Your task to perform on an android device: all mails in gmail Image 0: 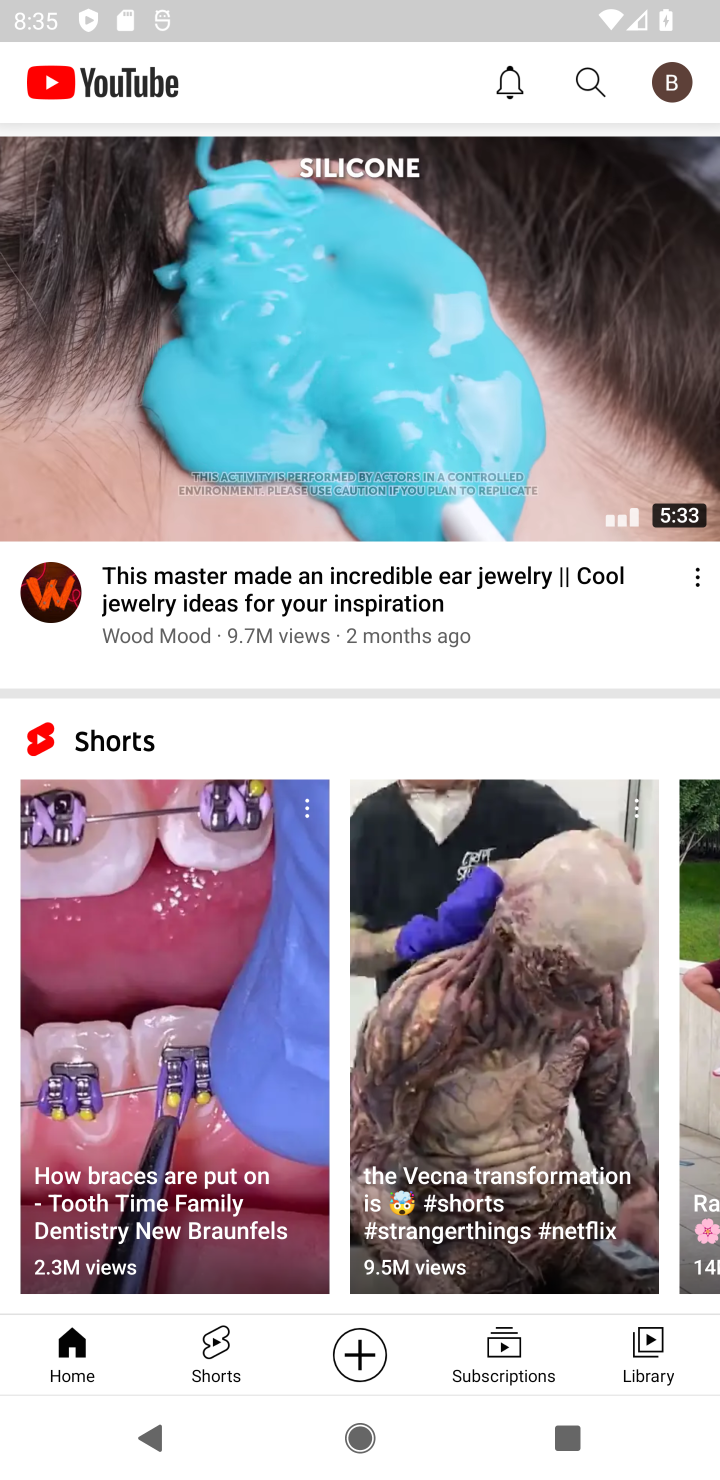
Step 0: press home button
Your task to perform on an android device: all mails in gmail Image 1: 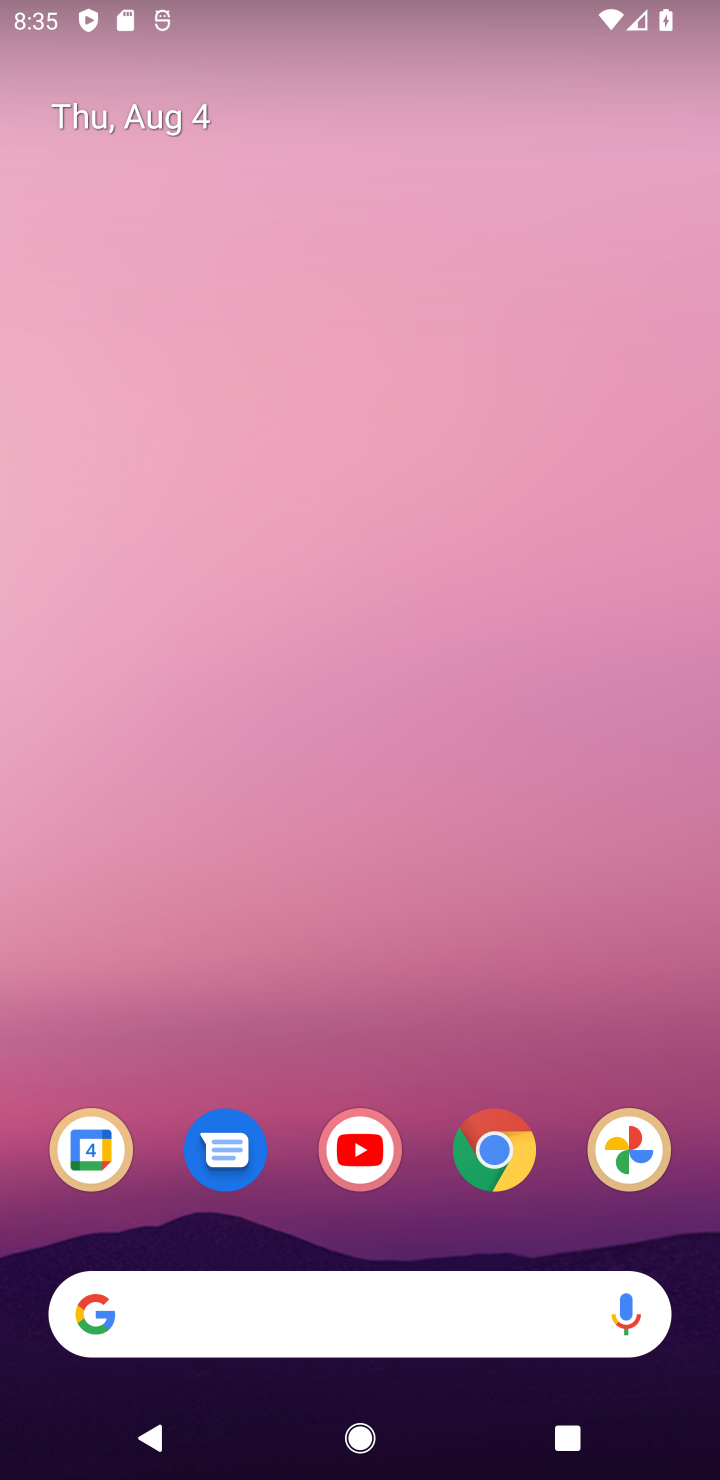
Step 1: drag from (467, 1228) to (333, 127)
Your task to perform on an android device: all mails in gmail Image 2: 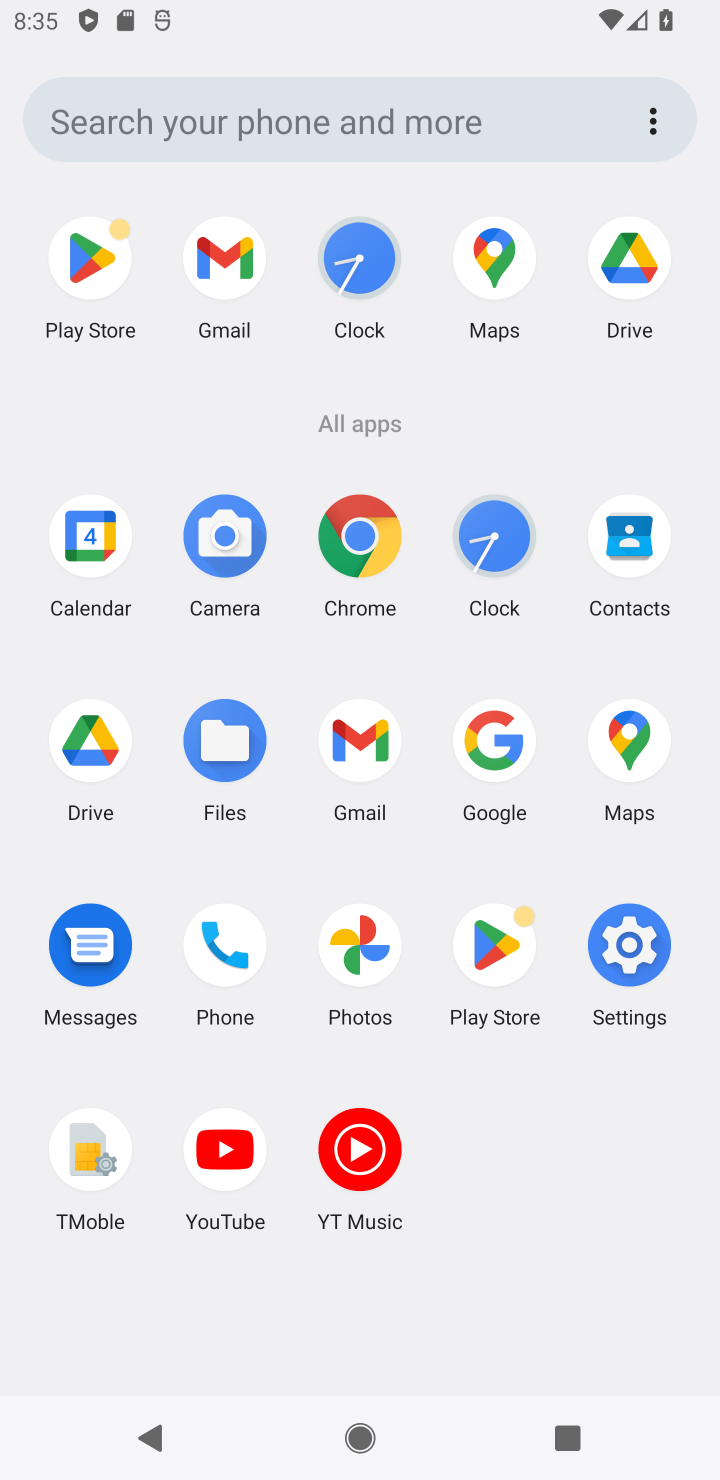
Step 2: click (344, 784)
Your task to perform on an android device: all mails in gmail Image 3: 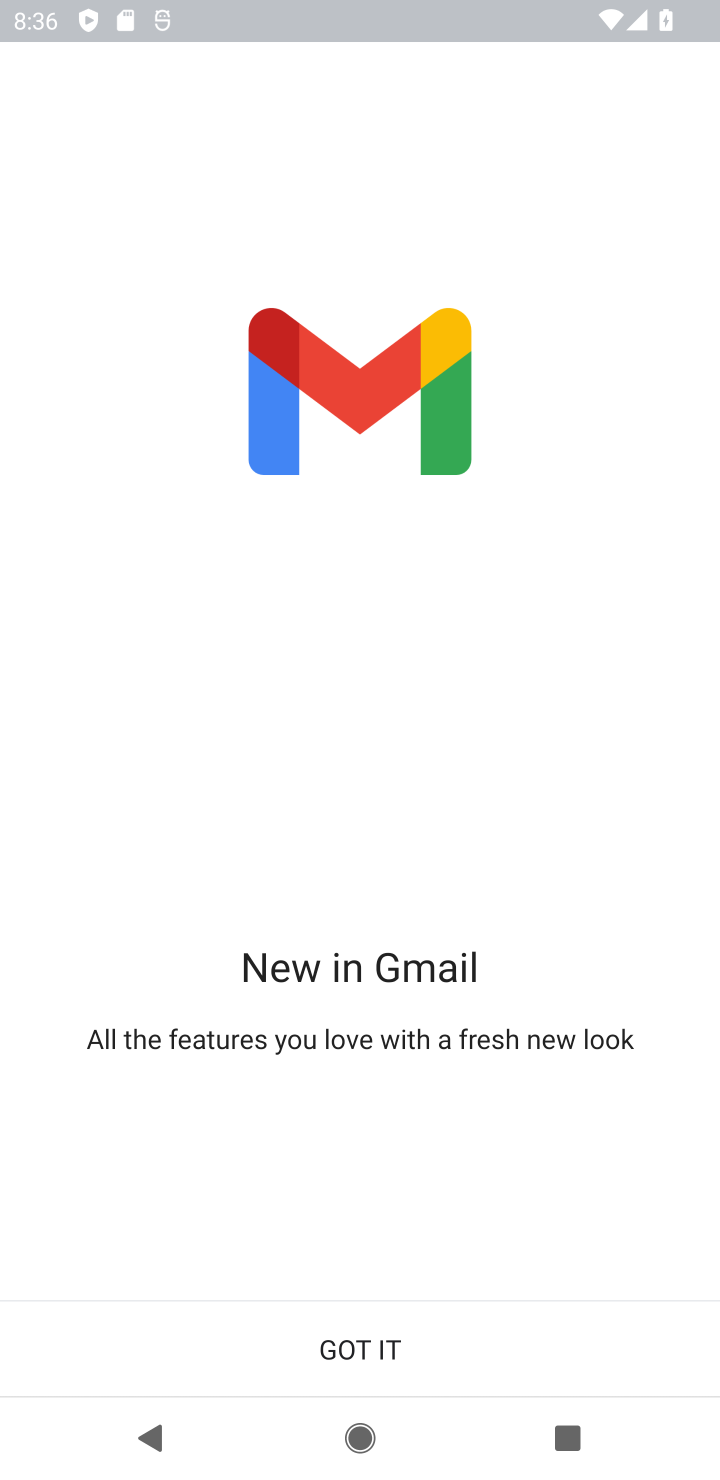
Step 3: click (429, 1333)
Your task to perform on an android device: all mails in gmail Image 4: 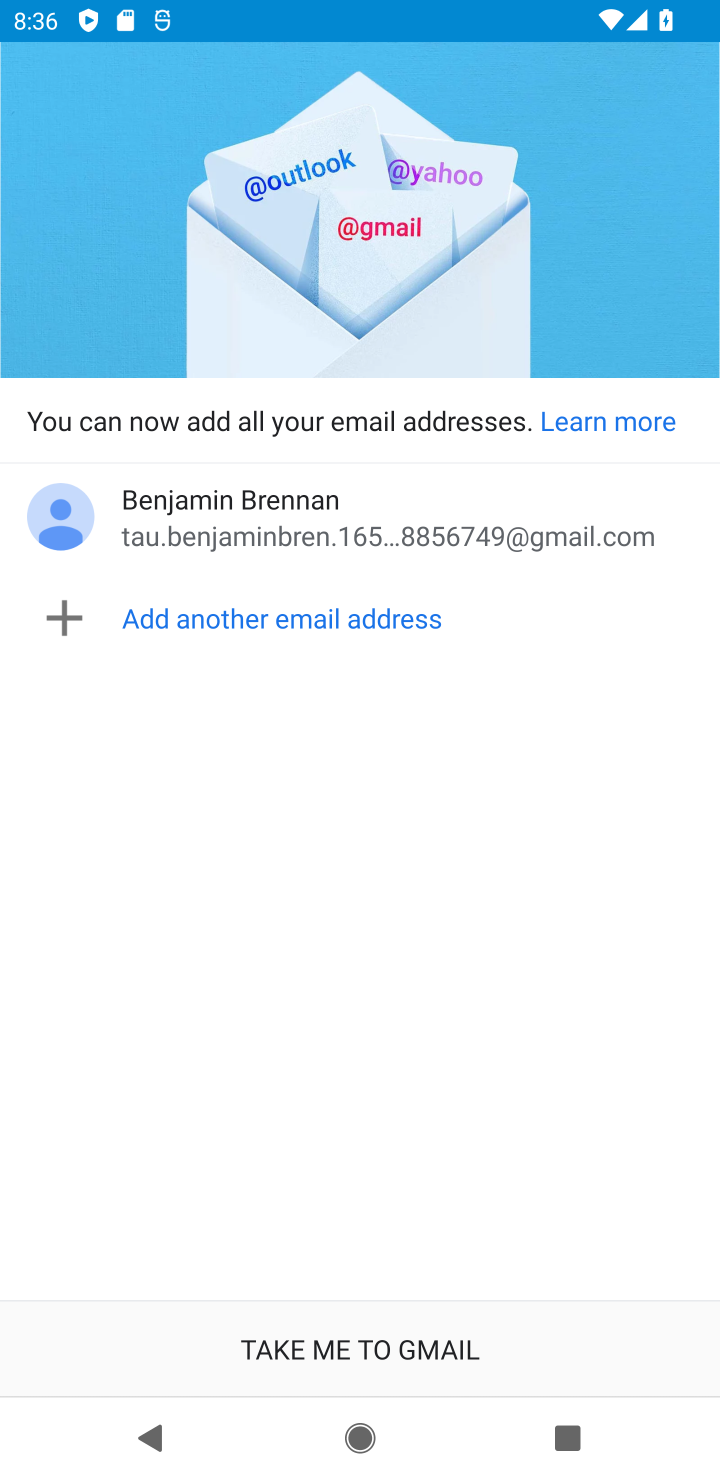
Step 4: click (390, 1345)
Your task to perform on an android device: all mails in gmail Image 5: 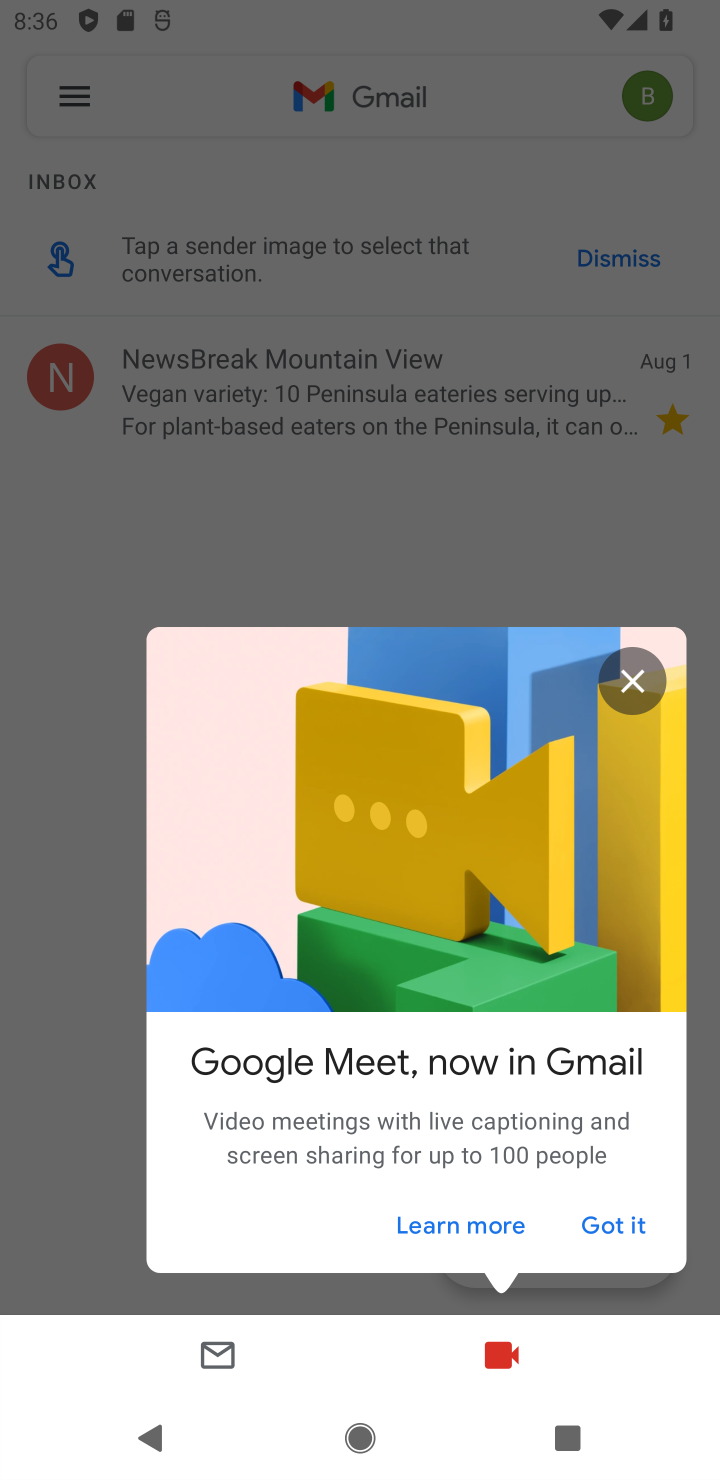
Step 5: click (642, 1224)
Your task to perform on an android device: all mails in gmail Image 6: 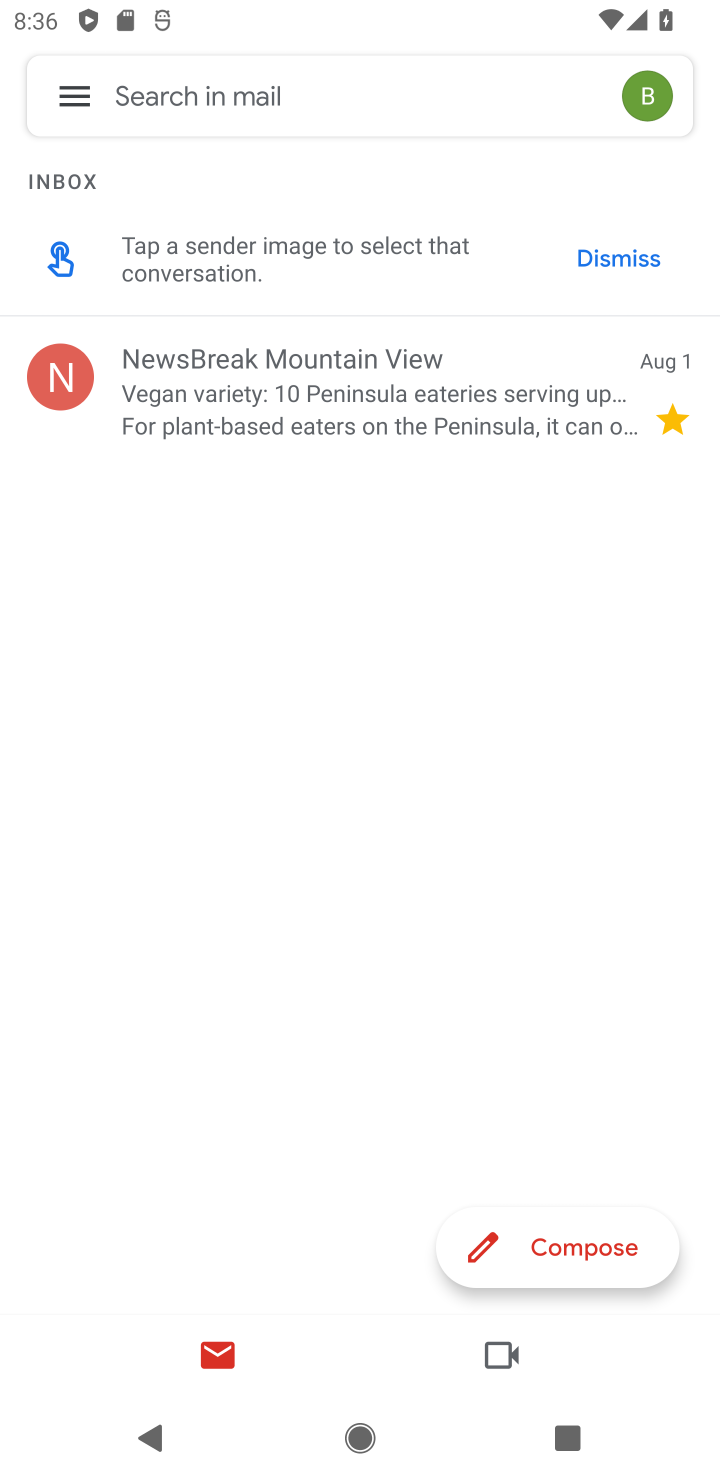
Step 6: click (63, 94)
Your task to perform on an android device: all mails in gmail Image 7: 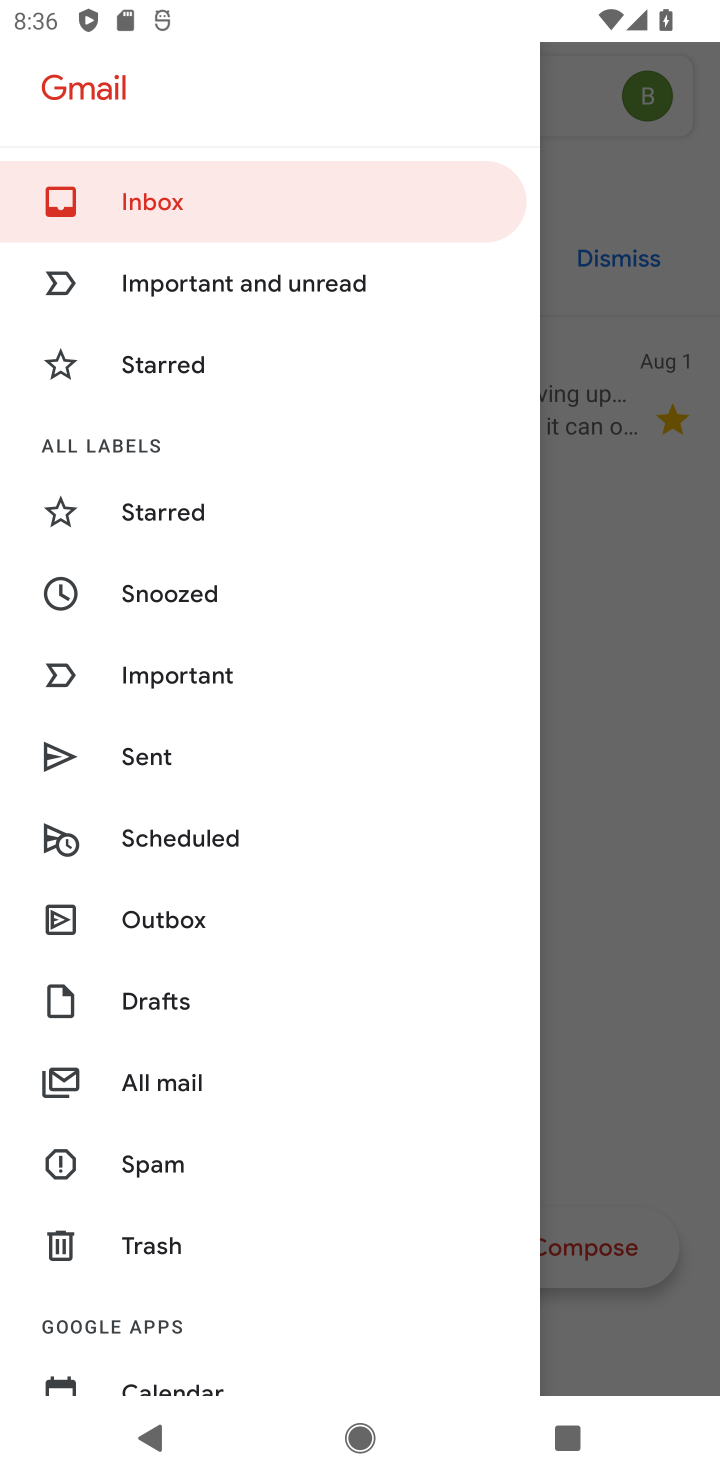
Step 7: click (184, 1082)
Your task to perform on an android device: all mails in gmail Image 8: 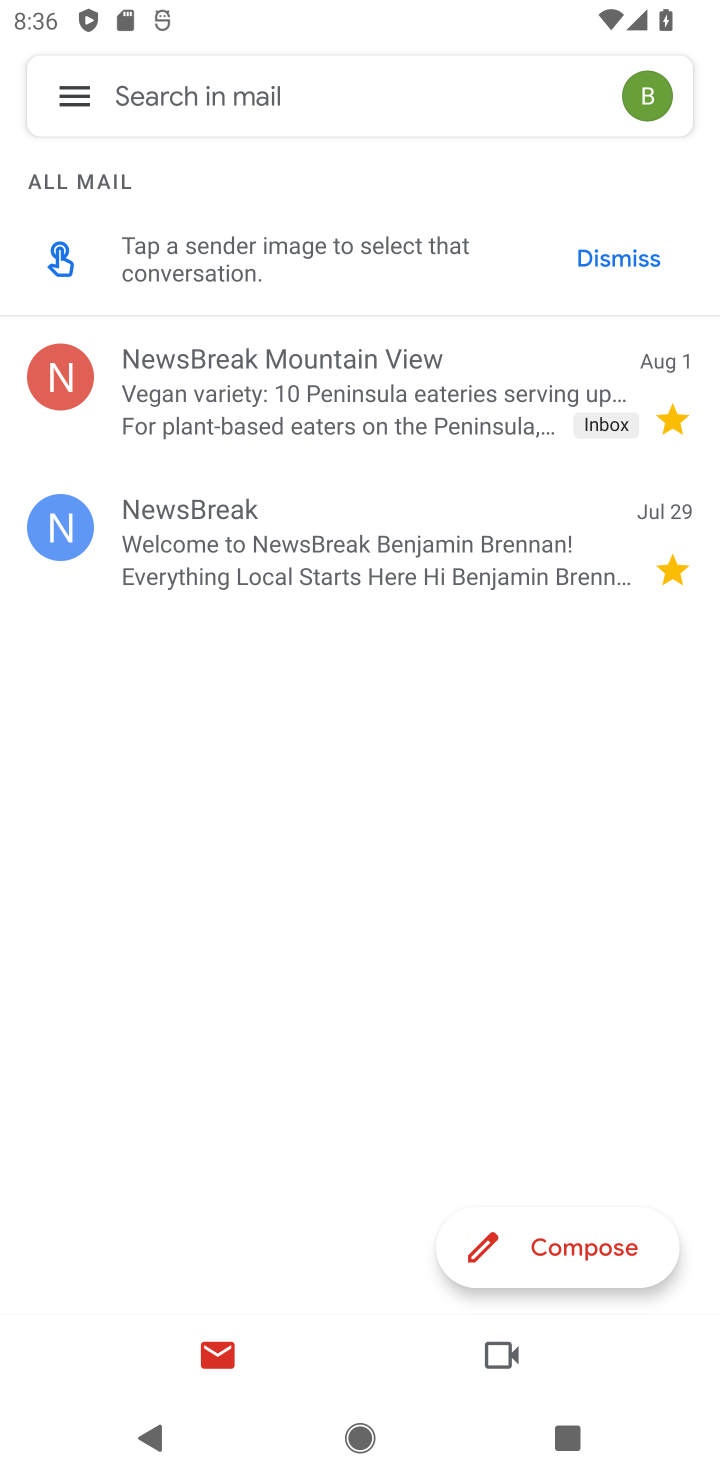
Step 8: task complete